Your task to perform on an android device: uninstall "Airtel Thanks" Image 0: 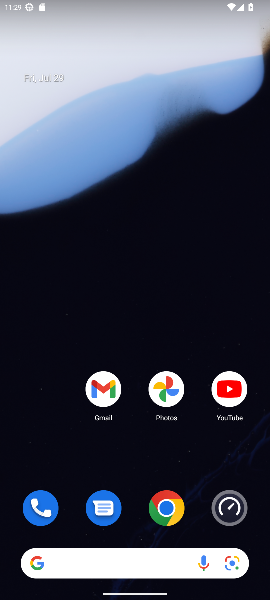
Step 0: drag from (147, 502) to (116, 134)
Your task to perform on an android device: uninstall "Airtel Thanks" Image 1: 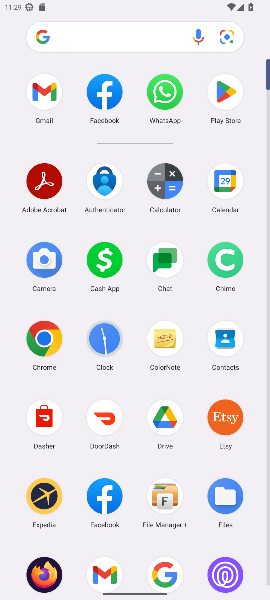
Step 1: click (230, 85)
Your task to perform on an android device: uninstall "Airtel Thanks" Image 2: 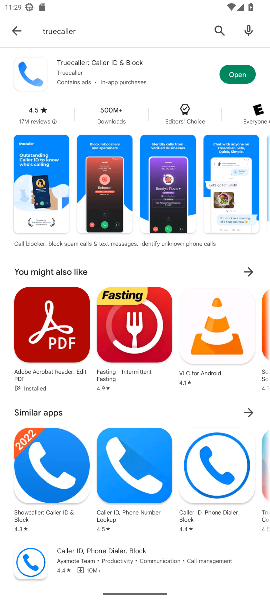
Step 2: click (218, 28)
Your task to perform on an android device: uninstall "Airtel Thanks" Image 3: 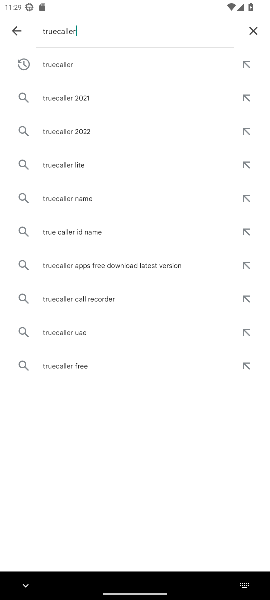
Step 3: click (247, 29)
Your task to perform on an android device: uninstall "Airtel Thanks" Image 4: 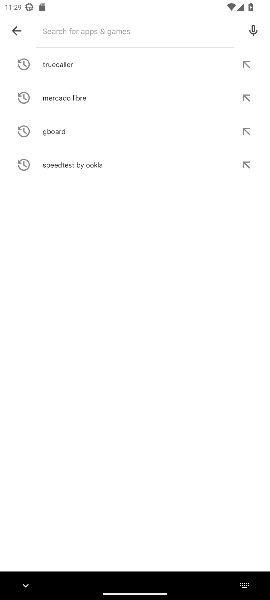
Step 4: type "airtel thanks"
Your task to perform on an android device: uninstall "Airtel Thanks" Image 5: 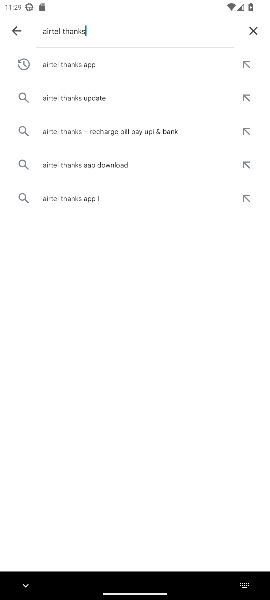
Step 5: click (80, 66)
Your task to perform on an android device: uninstall "Airtel Thanks" Image 6: 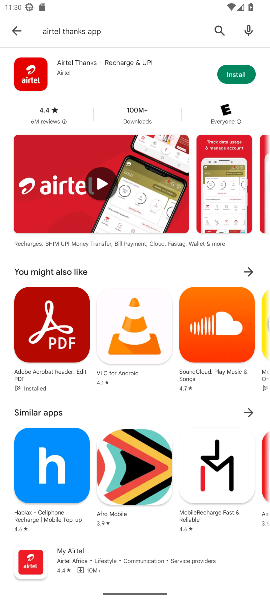
Step 6: task complete